Your task to perform on an android device: Turn on the flashlight Image 0: 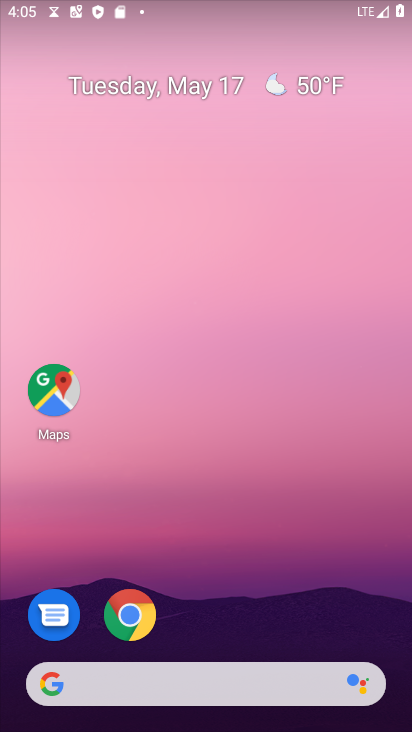
Step 0: drag from (278, 657) to (178, 126)
Your task to perform on an android device: Turn on the flashlight Image 1: 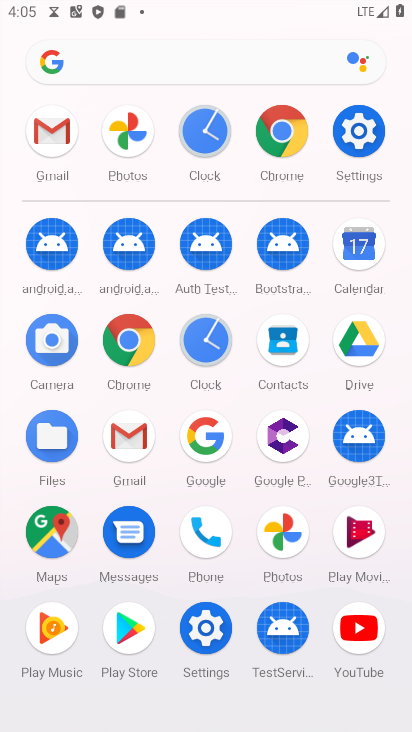
Step 1: task complete